Your task to perform on an android device: Open notification settings Image 0: 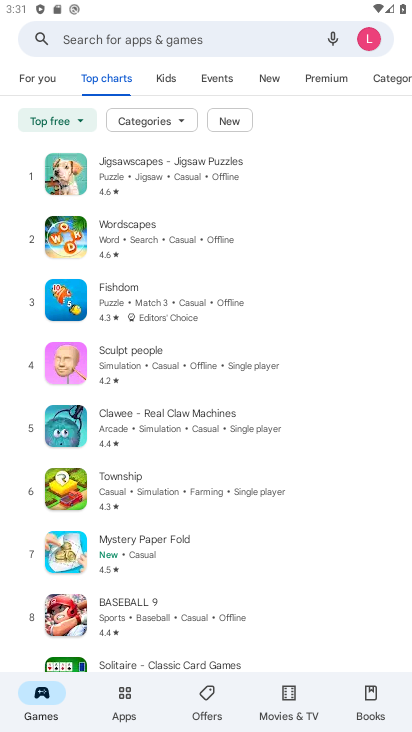
Step 0: press home button
Your task to perform on an android device: Open notification settings Image 1: 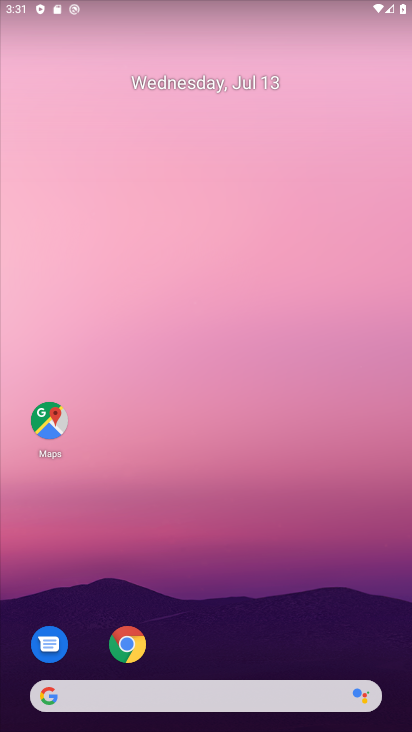
Step 1: drag from (205, 635) to (204, 174)
Your task to perform on an android device: Open notification settings Image 2: 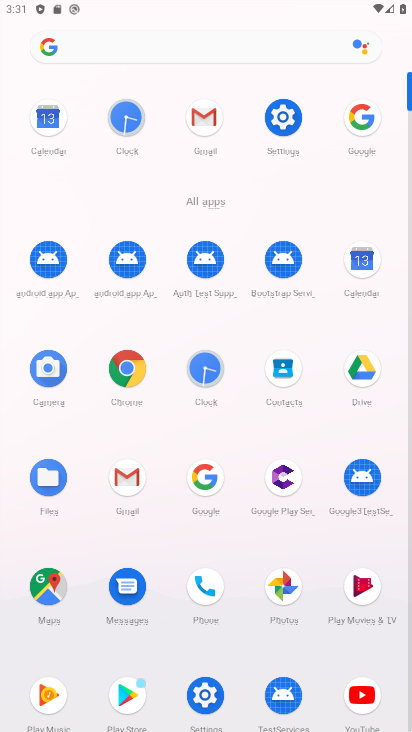
Step 2: click (280, 109)
Your task to perform on an android device: Open notification settings Image 3: 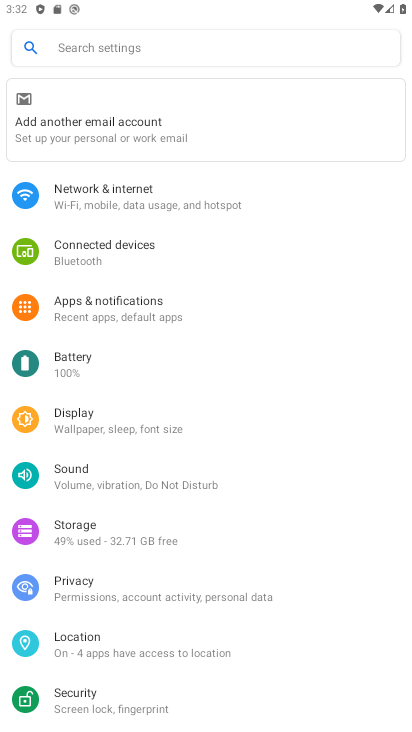
Step 3: click (144, 290)
Your task to perform on an android device: Open notification settings Image 4: 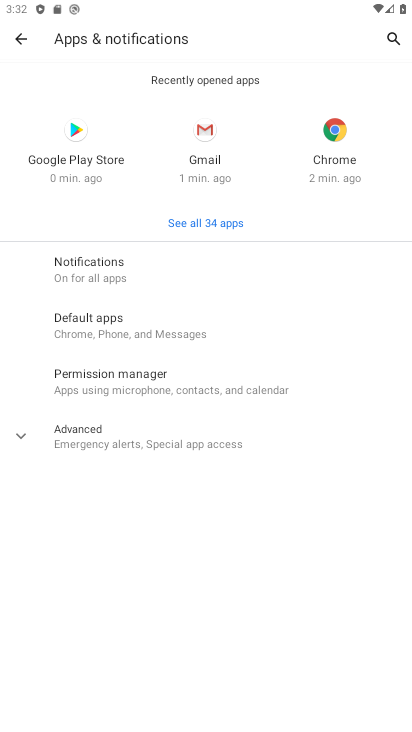
Step 4: click (127, 262)
Your task to perform on an android device: Open notification settings Image 5: 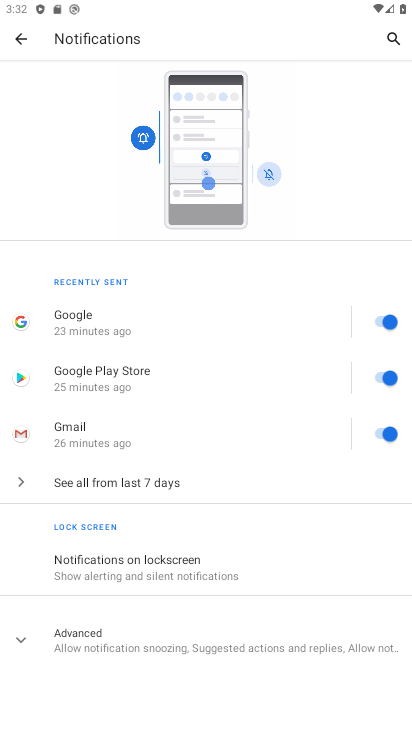
Step 5: task complete